Your task to perform on an android device: Open Yahoo.com Image 0: 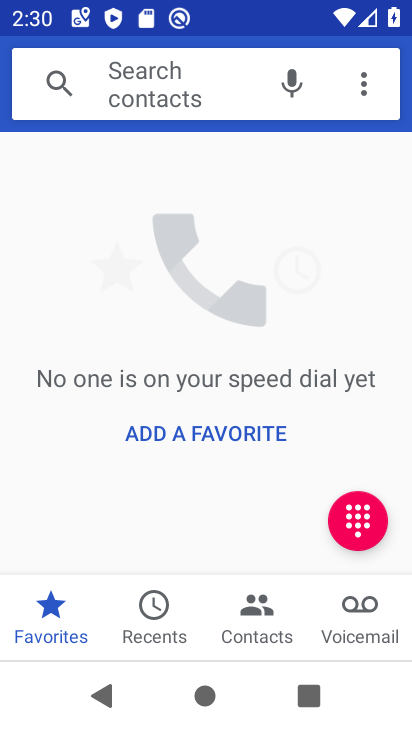
Step 0: press home button
Your task to perform on an android device: Open Yahoo.com Image 1: 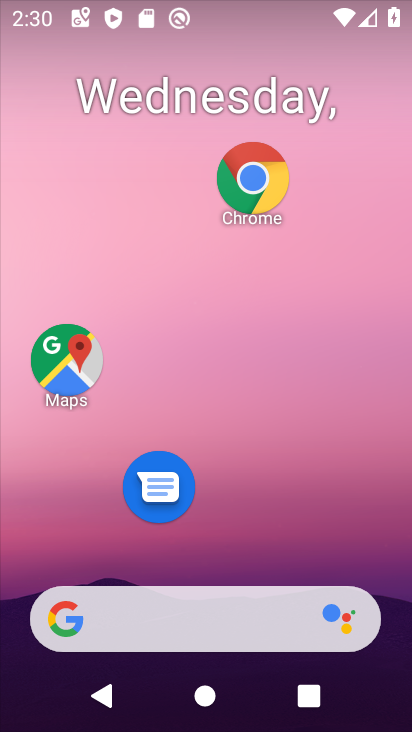
Step 1: click (258, 177)
Your task to perform on an android device: Open Yahoo.com Image 2: 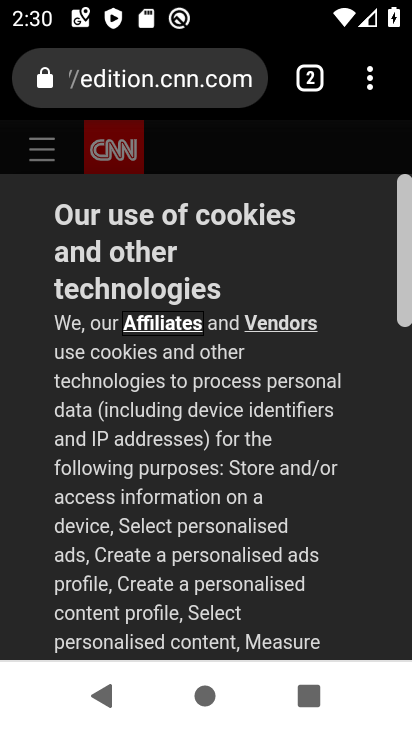
Step 2: click (169, 78)
Your task to perform on an android device: Open Yahoo.com Image 3: 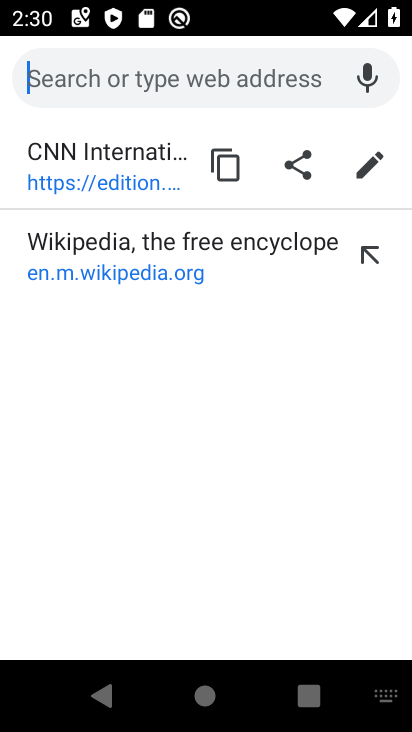
Step 3: type "yahoo.com"
Your task to perform on an android device: Open Yahoo.com Image 4: 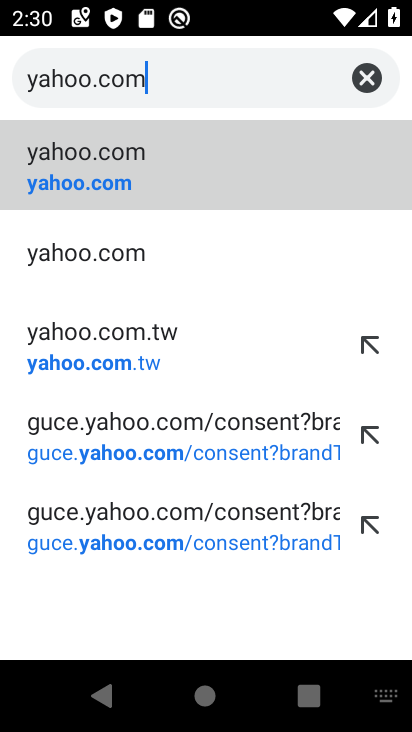
Step 4: click (43, 156)
Your task to perform on an android device: Open Yahoo.com Image 5: 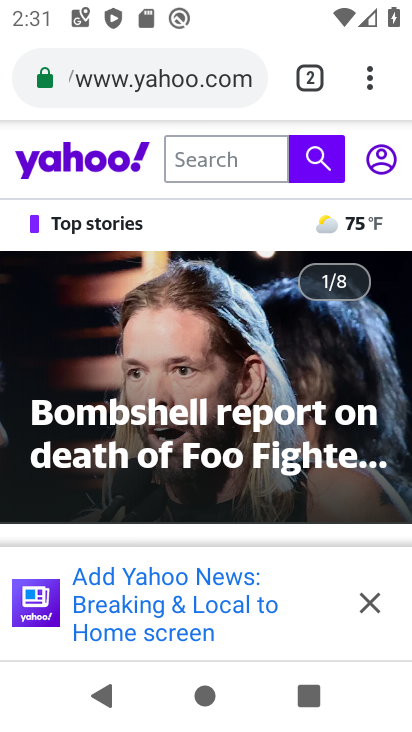
Step 5: task complete